Your task to perform on an android device: turn notification dots off Image 0: 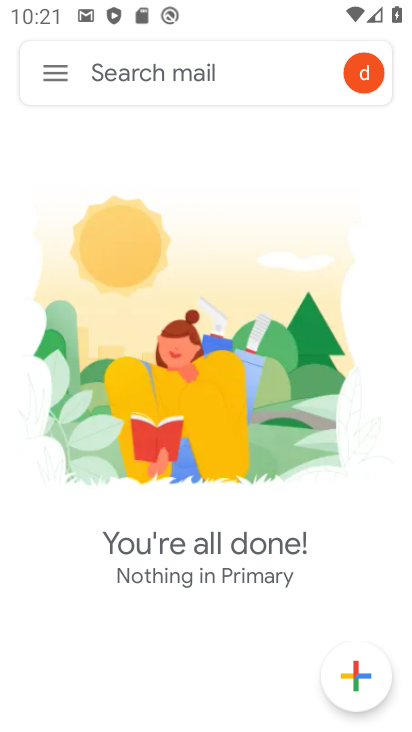
Step 0: press home button
Your task to perform on an android device: turn notification dots off Image 1: 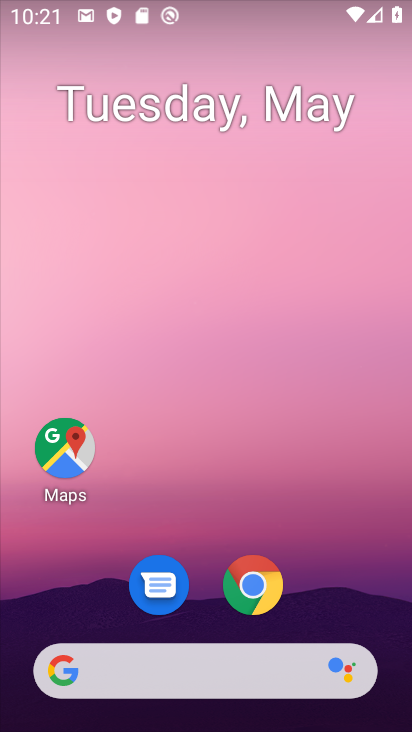
Step 1: drag from (198, 511) to (248, 33)
Your task to perform on an android device: turn notification dots off Image 2: 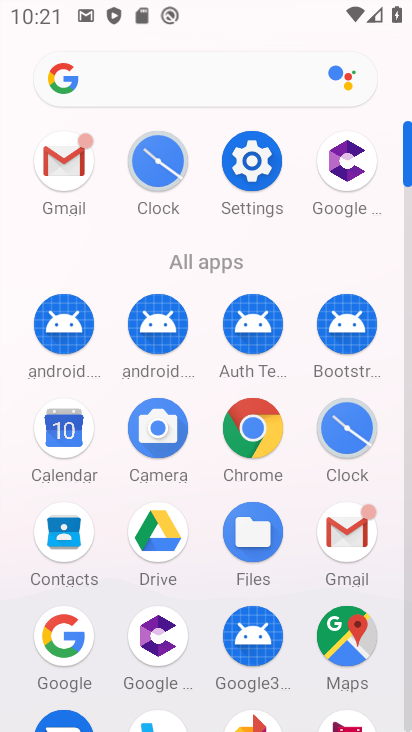
Step 2: click (247, 167)
Your task to perform on an android device: turn notification dots off Image 3: 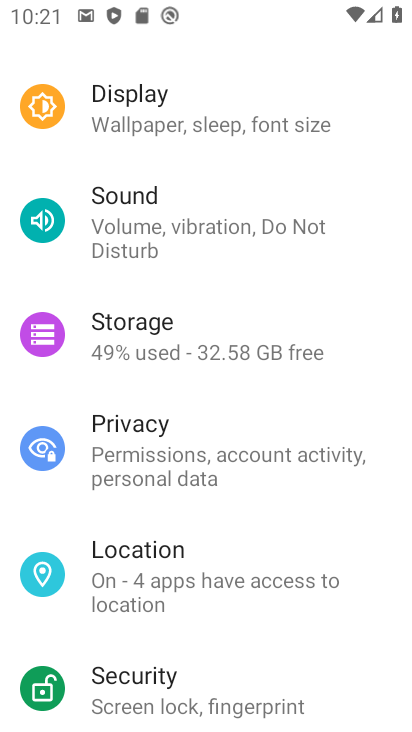
Step 3: drag from (247, 167) to (195, 703)
Your task to perform on an android device: turn notification dots off Image 4: 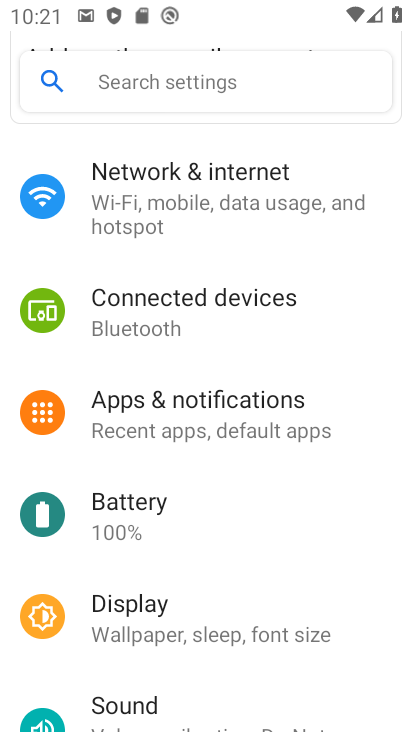
Step 4: click (263, 407)
Your task to perform on an android device: turn notification dots off Image 5: 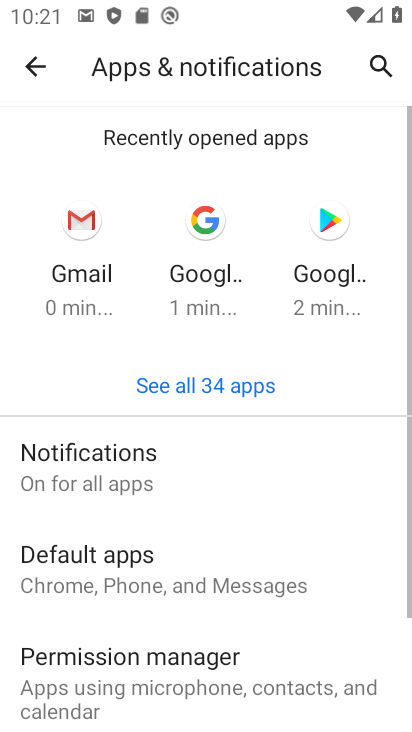
Step 5: click (216, 476)
Your task to perform on an android device: turn notification dots off Image 6: 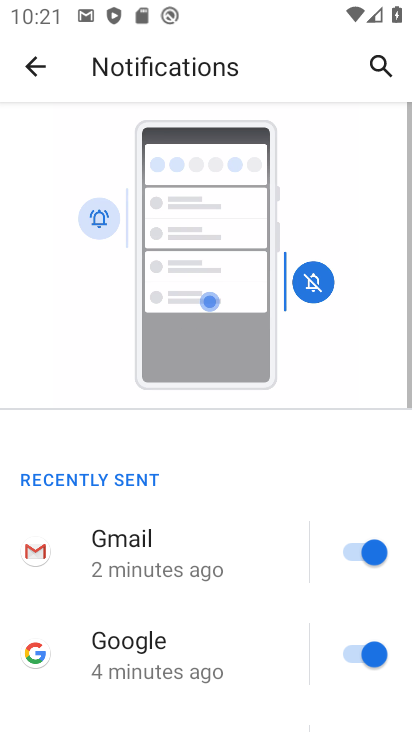
Step 6: drag from (205, 624) to (312, 150)
Your task to perform on an android device: turn notification dots off Image 7: 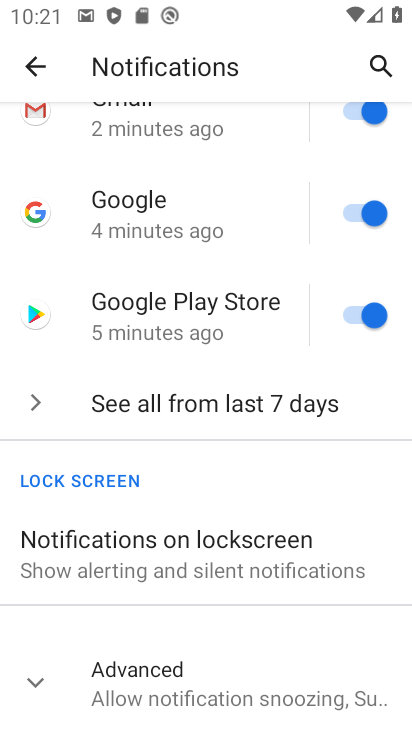
Step 7: click (27, 670)
Your task to perform on an android device: turn notification dots off Image 8: 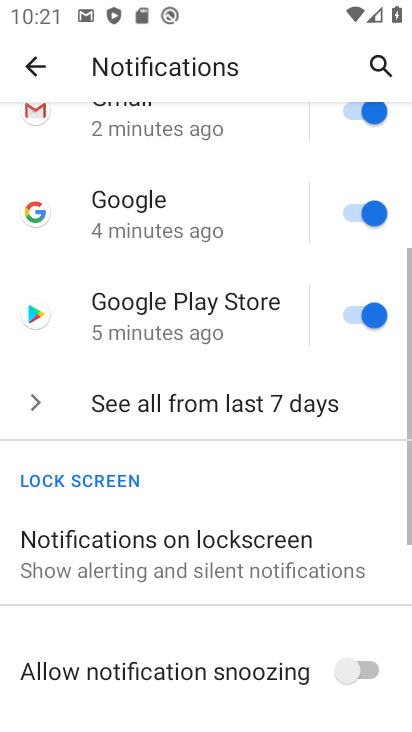
Step 8: drag from (165, 630) to (286, 209)
Your task to perform on an android device: turn notification dots off Image 9: 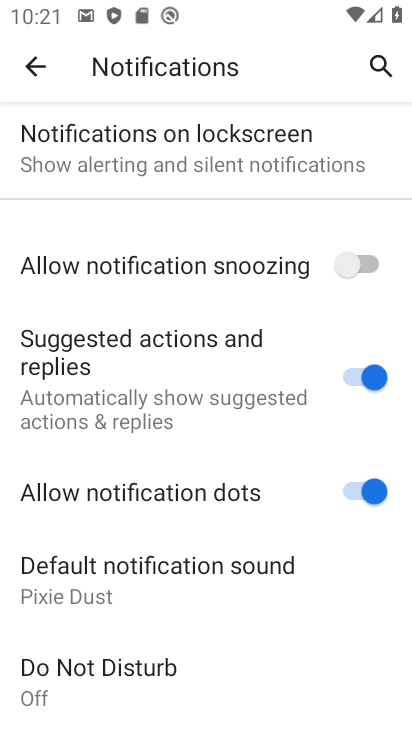
Step 9: click (344, 491)
Your task to perform on an android device: turn notification dots off Image 10: 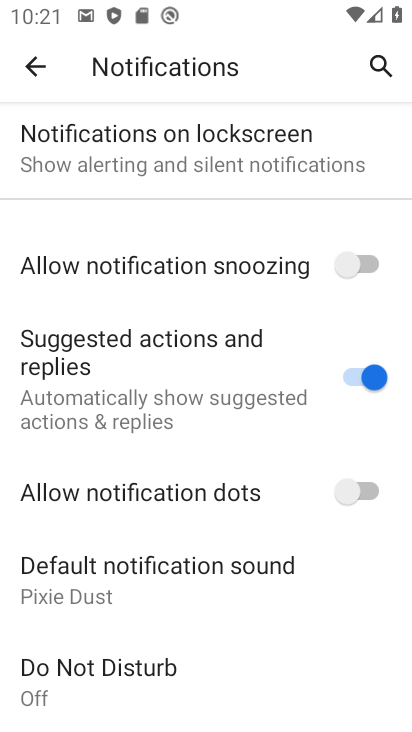
Step 10: task complete